Your task to perform on an android device: turn smart compose on in the gmail app Image 0: 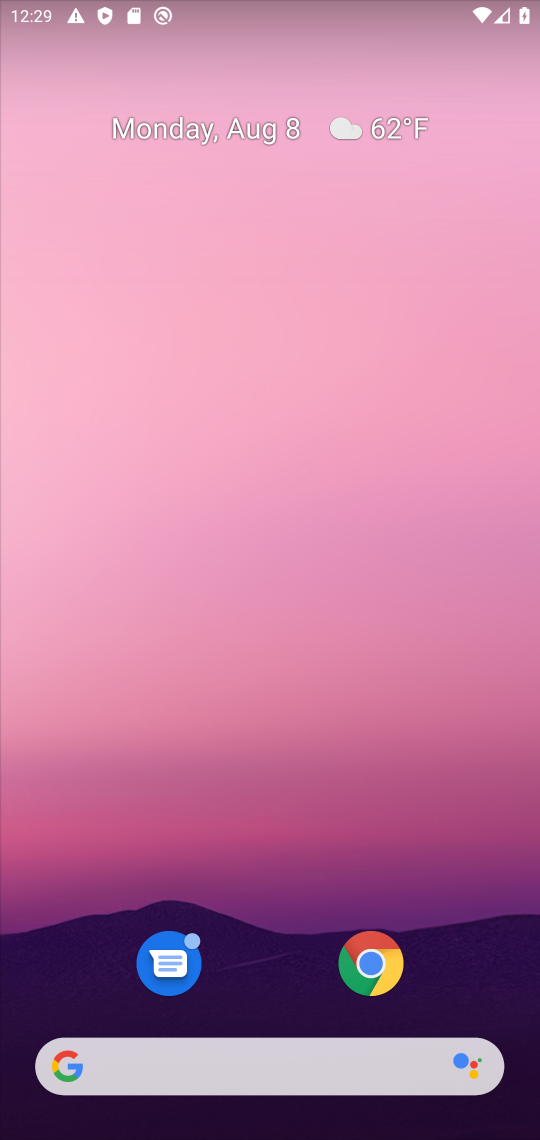
Step 0: drag from (493, 926) to (188, 57)
Your task to perform on an android device: turn smart compose on in the gmail app Image 1: 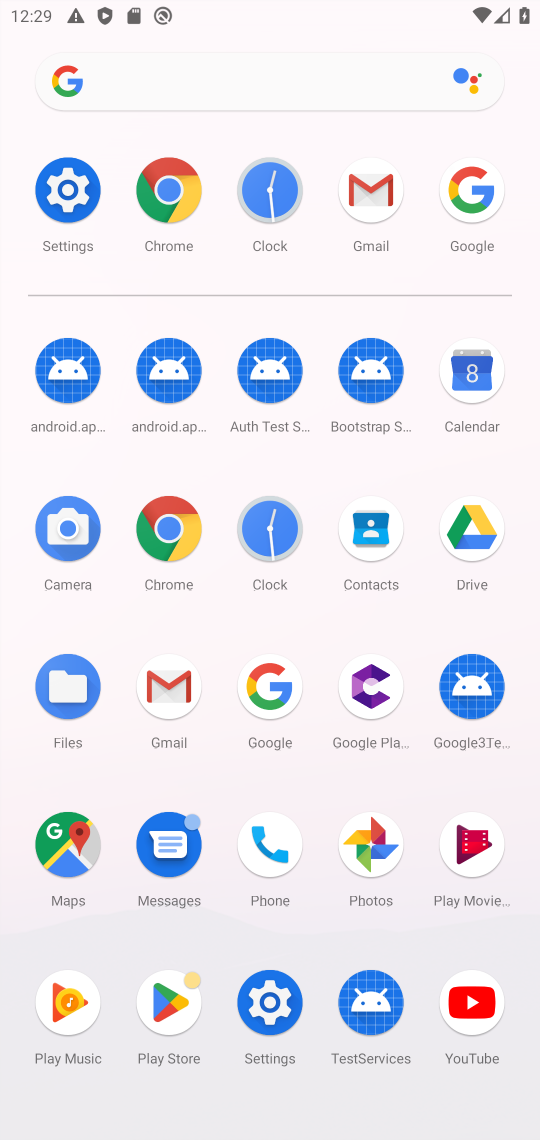
Step 1: click (174, 706)
Your task to perform on an android device: turn smart compose on in the gmail app Image 2: 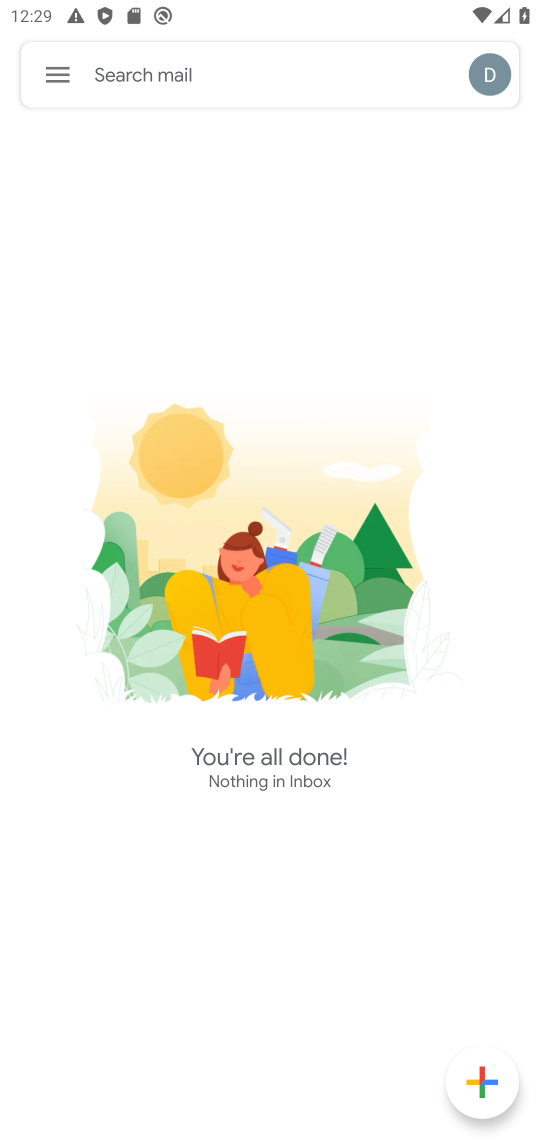
Step 2: click (42, 61)
Your task to perform on an android device: turn smart compose on in the gmail app Image 3: 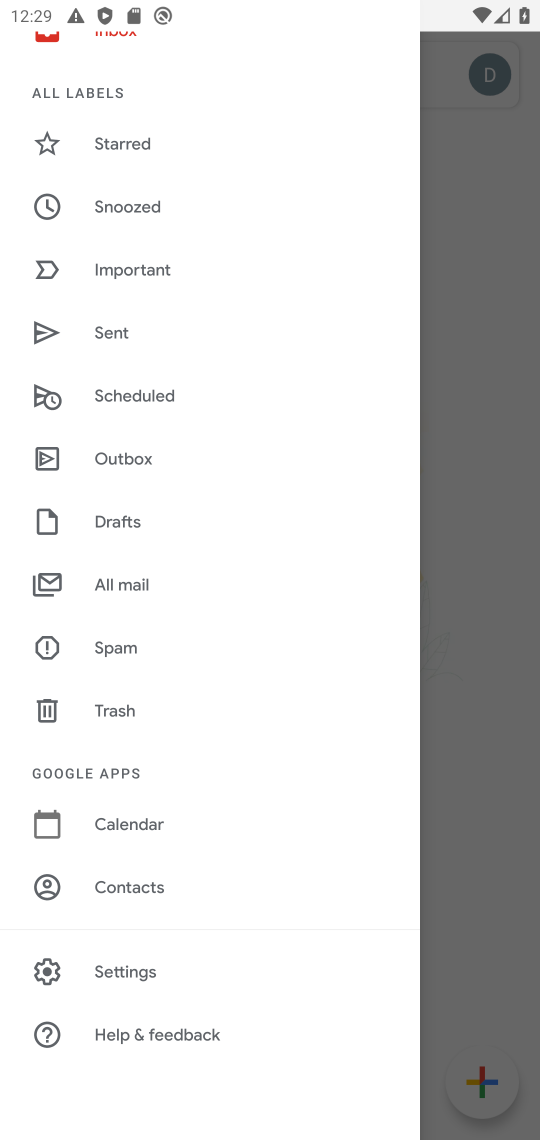
Step 3: click (169, 974)
Your task to perform on an android device: turn smart compose on in the gmail app Image 4: 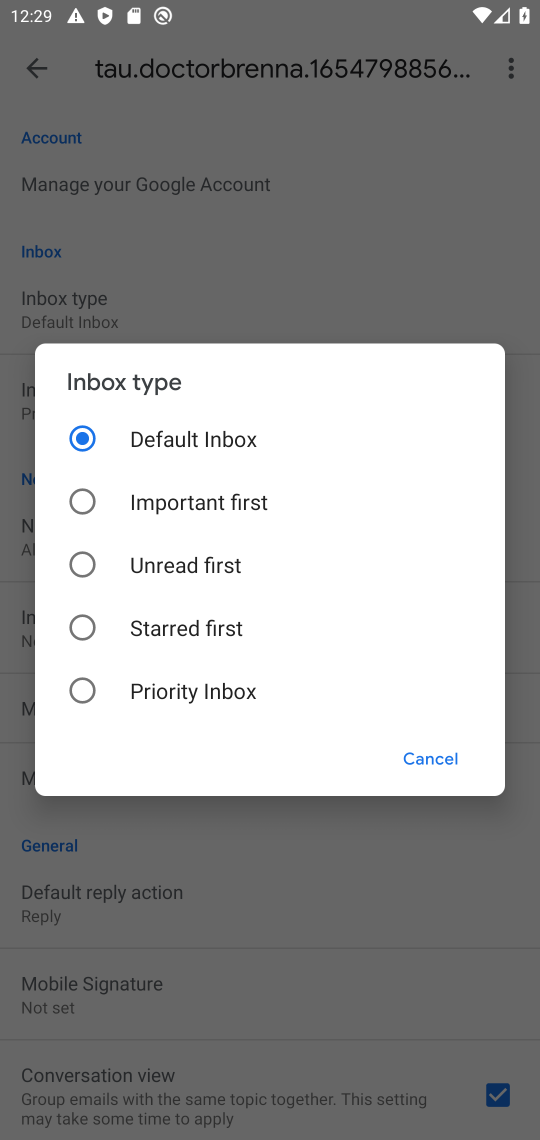
Step 4: click (407, 760)
Your task to perform on an android device: turn smart compose on in the gmail app Image 5: 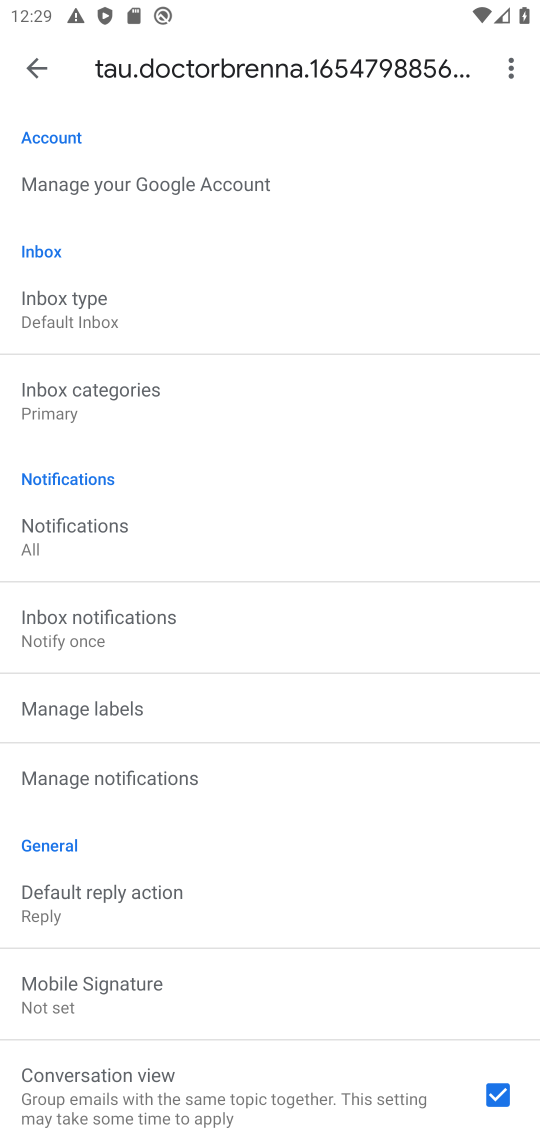
Step 5: task complete